Your task to perform on an android device: What's the weather? Image 0: 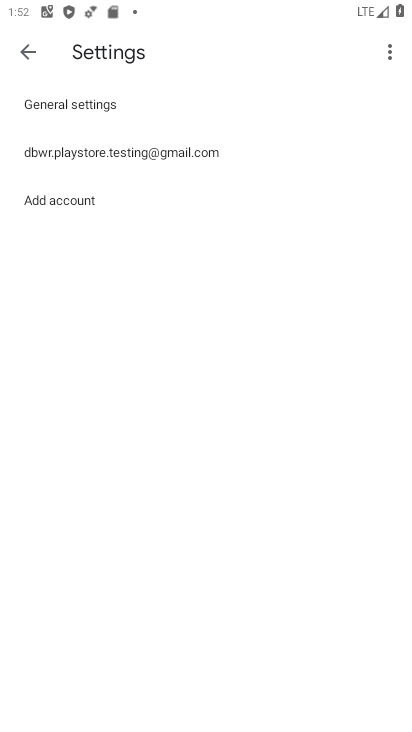
Step 0: press home button
Your task to perform on an android device: What's the weather? Image 1: 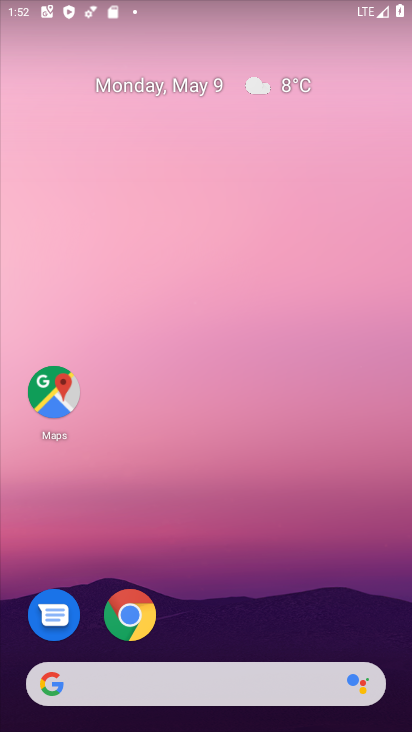
Step 1: click (289, 83)
Your task to perform on an android device: What's the weather? Image 2: 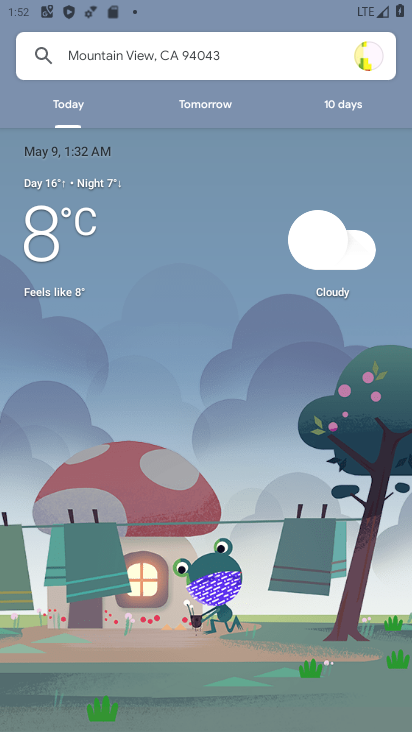
Step 2: task complete